Your task to perform on an android device: turn off data saver in the chrome app Image 0: 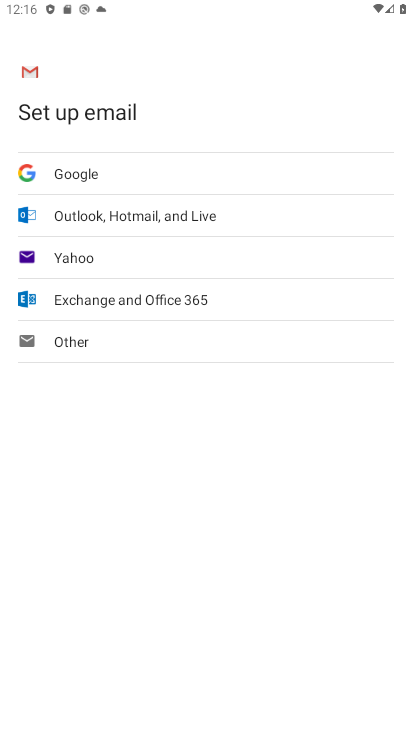
Step 0: press home button
Your task to perform on an android device: turn off data saver in the chrome app Image 1: 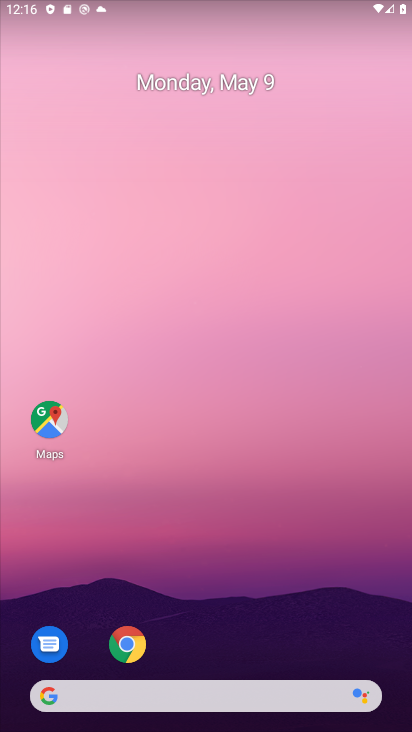
Step 1: click (136, 643)
Your task to perform on an android device: turn off data saver in the chrome app Image 2: 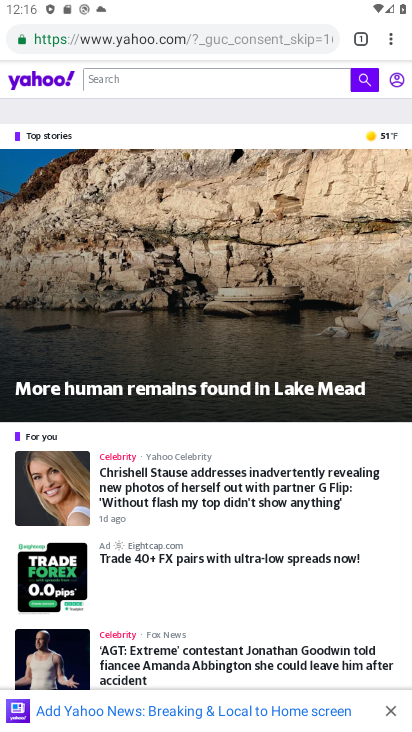
Step 2: click (390, 44)
Your task to perform on an android device: turn off data saver in the chrome app Image 3: 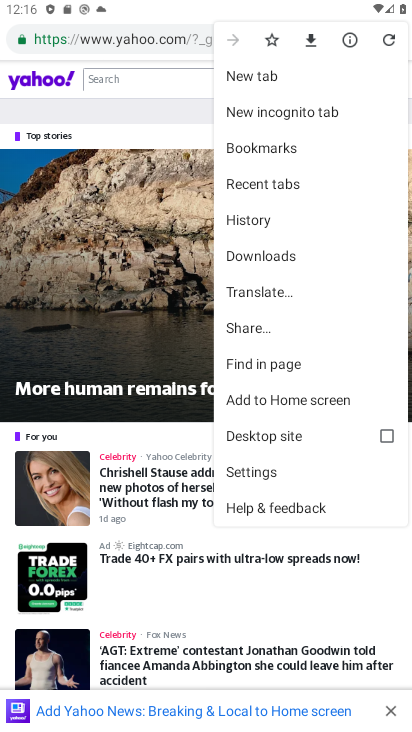
Step 3: click (268, 473)
Your task to perform on an android device: turn off data saver in the chrome app Image 4: 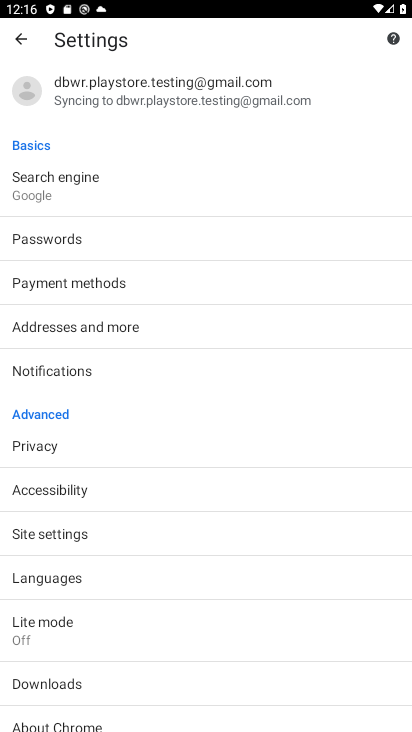
Step 4: click (100, 631)
Your task to perform on an android device: turn off data saver in the chrome app Image 5: 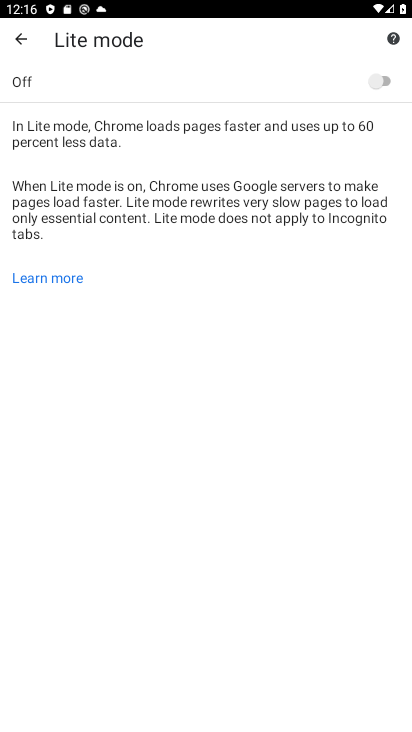
Step 5: task complete